Your task to perform on an android device: delete location history Image 0: 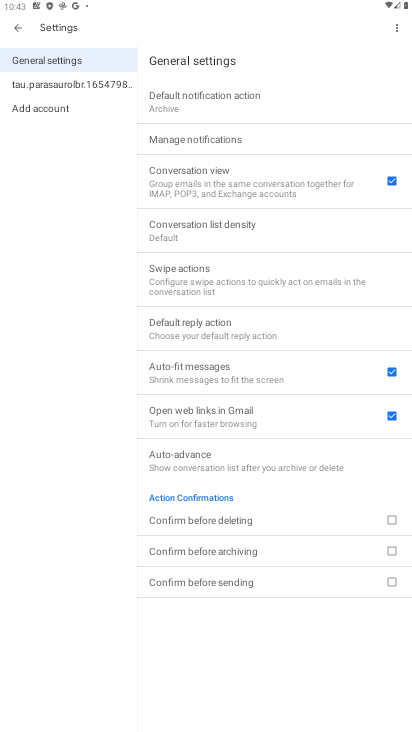
Step 0: press home button
Your task to perform on an android device: delete location history Image 1: 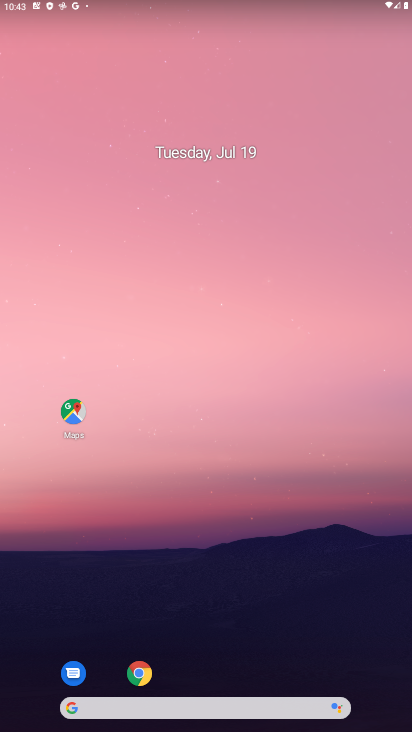
Step 1: drag from (232, 646) to (140, 90)
Your task to perform on an android device: delete location history Image 2: 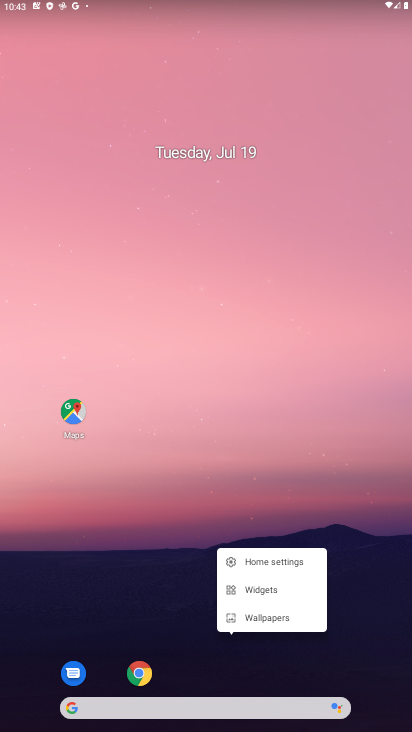
Step 2: click (148, 410)
Your task to perform on an android device: delete location history Image 3: 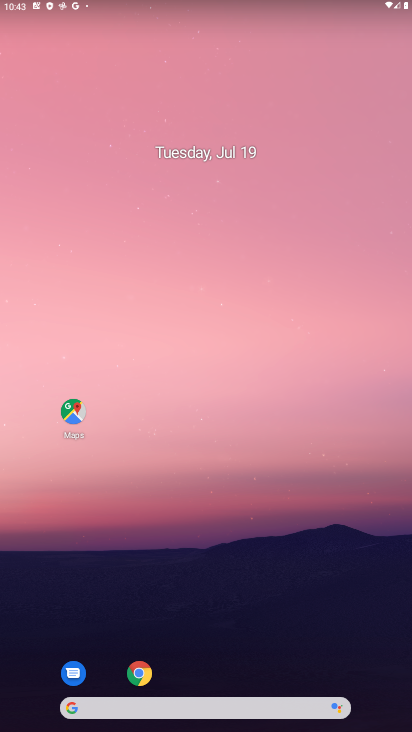
Step 3: drag from (269, 683) to (255, 230)
Your task to perform on an android device: delete location history Image 4: 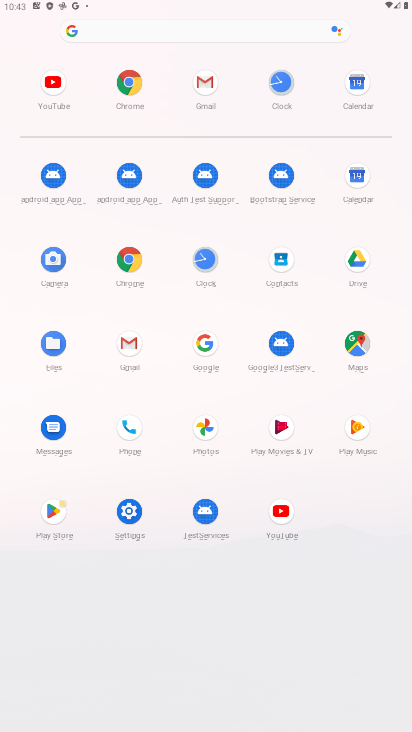
Step 4: click (131, 504)
Your task to perform on an android device: delete location history Image 5: 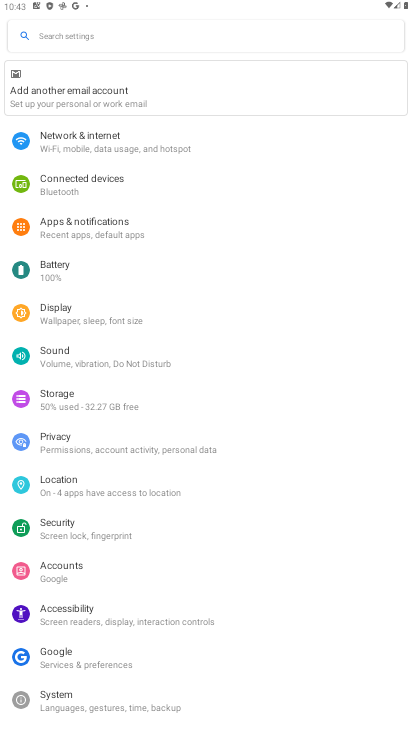
Step 5: click (106, 471)
Your task to perform on an android device: delete location history Image 6: 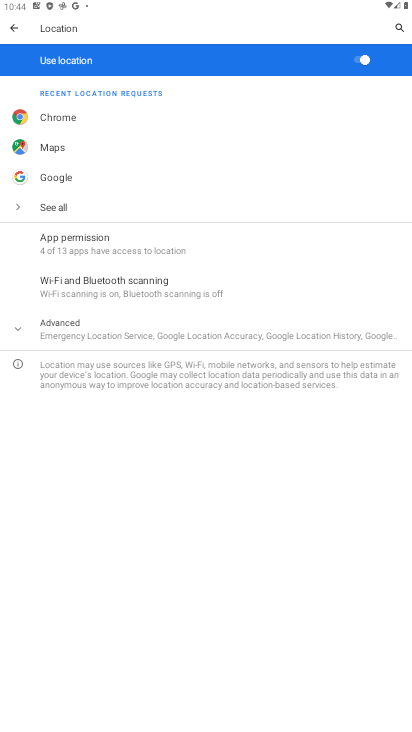
Step 6: click (178, 322)
Your task to perform on an android device: delete location history Image 7: 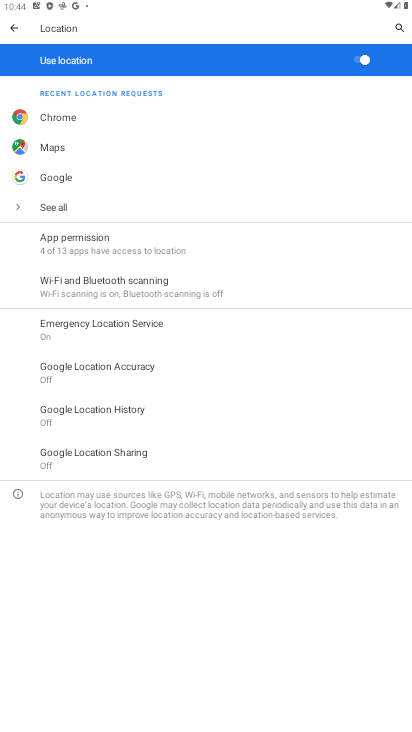
Step 7: click (154, 399)
Your task to perform on an android device: delete location history Image 8: 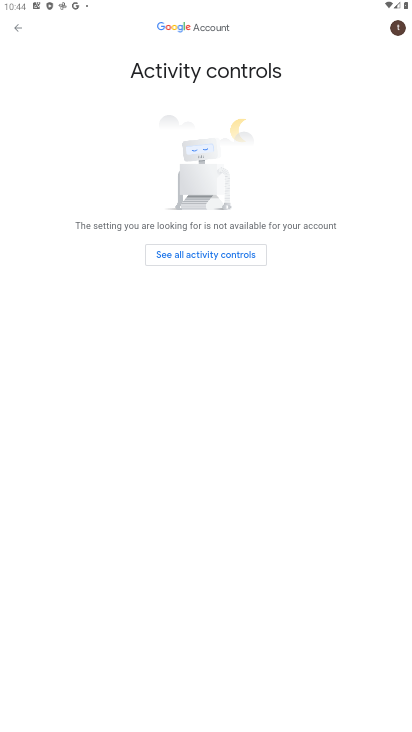
Step 8: task complete